Your task to perform on an android device: change alarm snooze length Image 0: 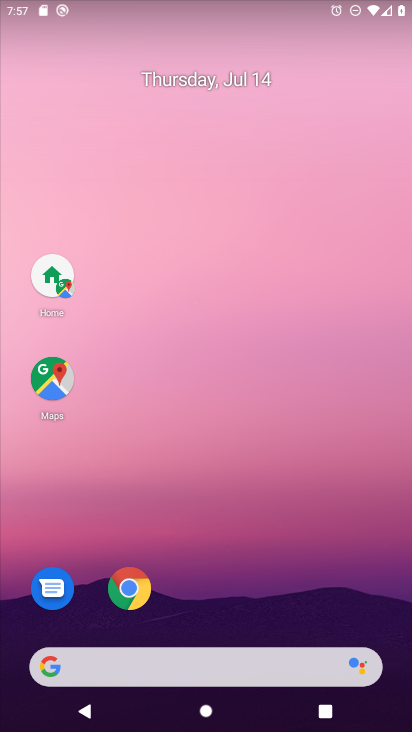
Step 0: drag from (114, 521) to (189, 33)
Your task to perform on an android device: change alarm snooze length Image 1: 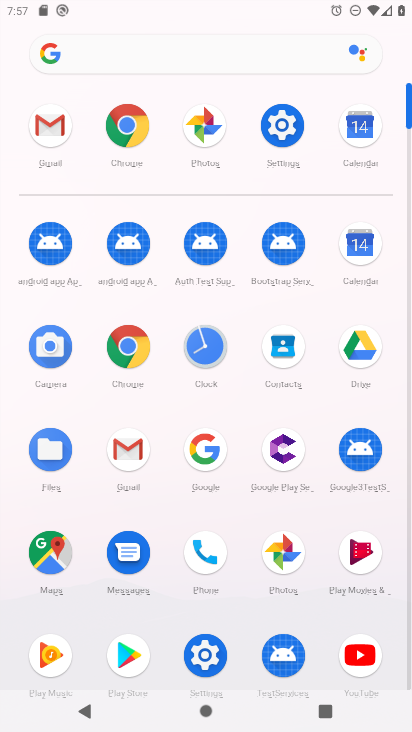
Step 1: click (205, 335)
Your task to perform on an android device: change alarm snooze length Image 2: 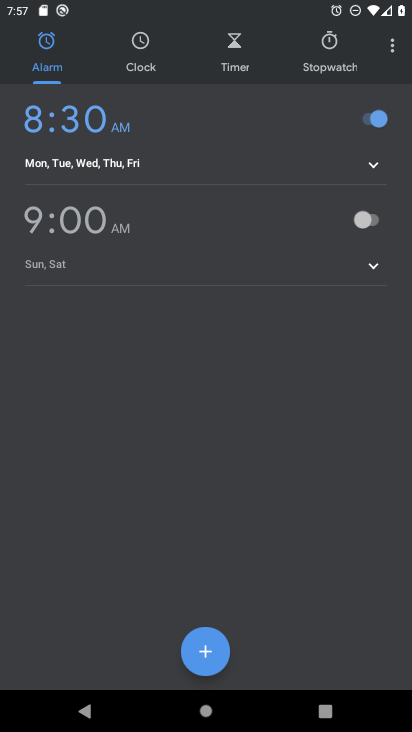
Step 2: click (391, 45)
Your task to perform on an android device: change alarm snooze length Image 3: 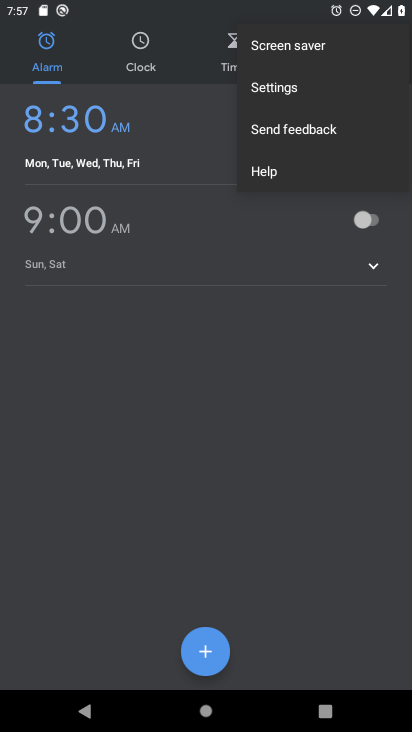
Step 3: click (289, 91)
Your task to perform on an android device: change alarm snooze length Image 4: 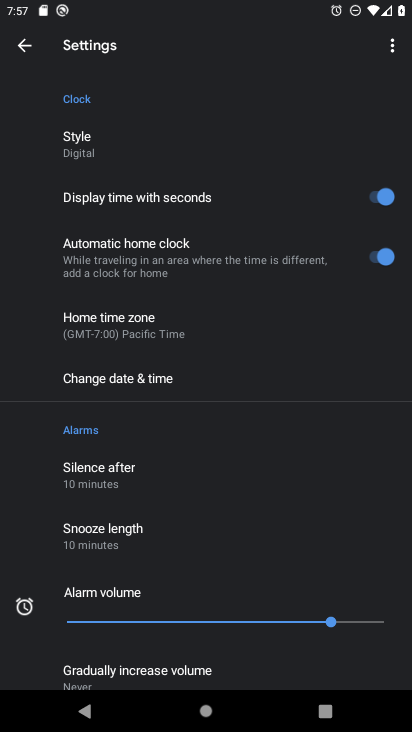
Step 4: click (87, 537)
Your task to perform on an android device: change alarm snooze length Image 5: 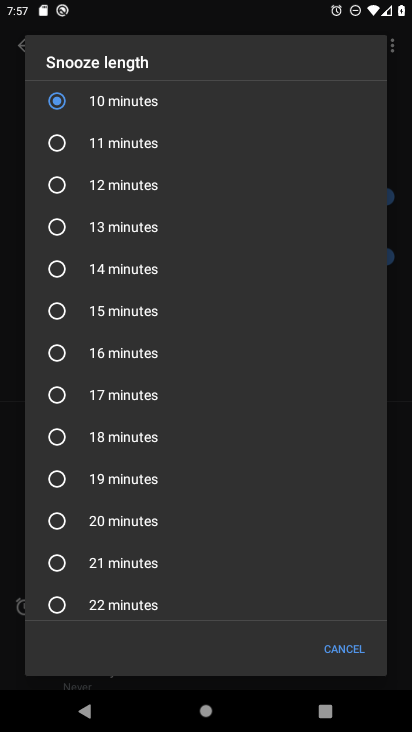
Step 5: click (62, 314)
Your task to perform on an android device: change alarm snooze length Image 6: 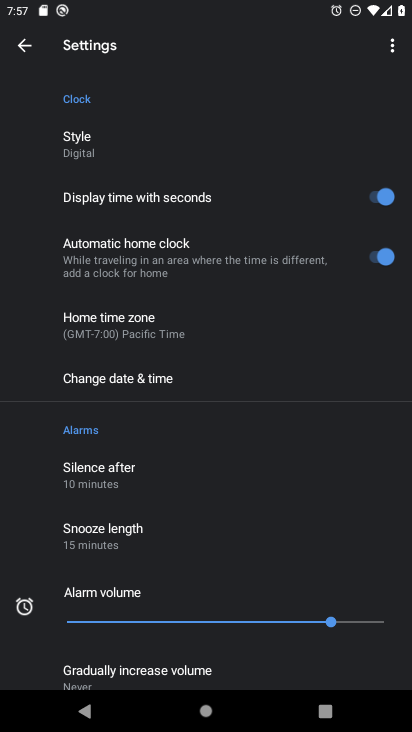
Step 6: task complete